Your task to perform on an android device: How much does the Vizio TV cost? Image 0: 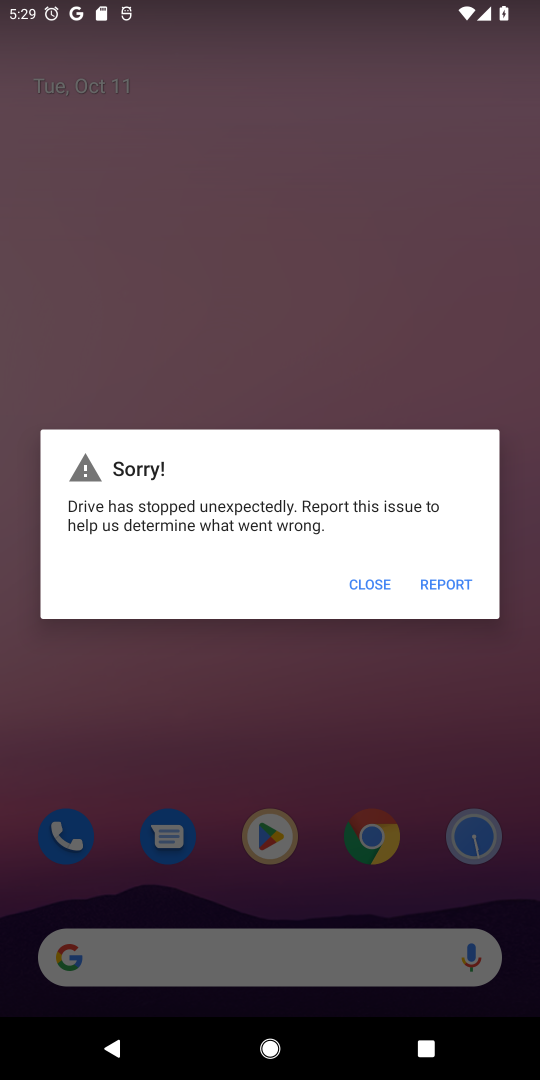
Step 0: click (362, 565)
Your task to perform on an android device: How much does the Vizio TV cost? Image 1: 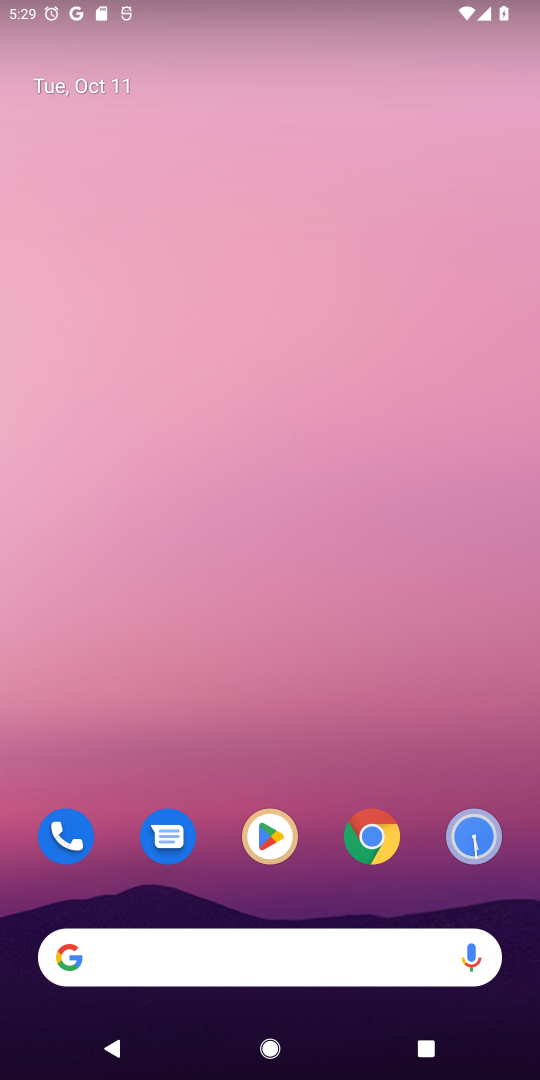
Step 1: click (209, 937)
Your task to perform on an android device: How much does the Vizio TV cost? Image 2: 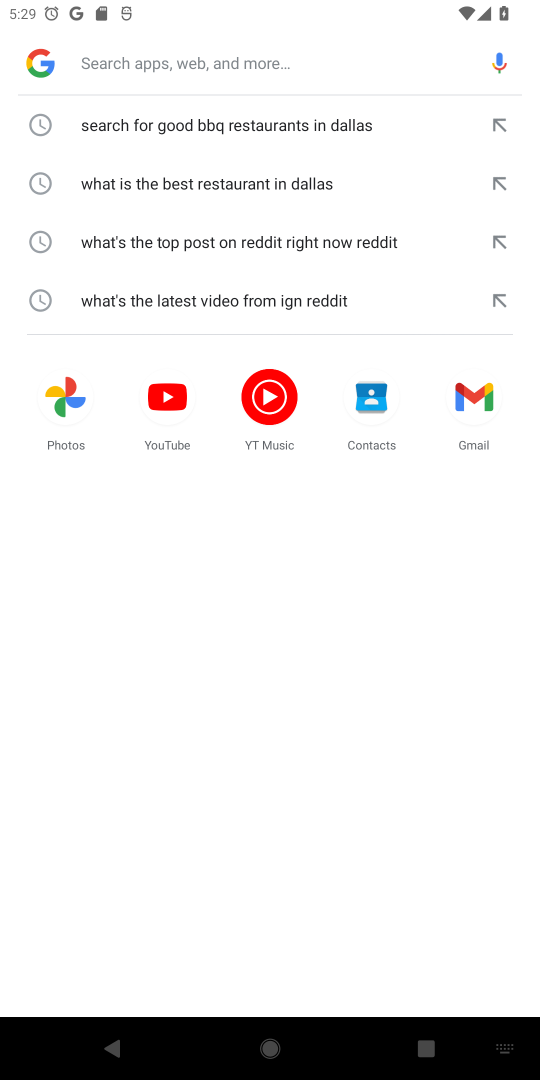
Step 2: type "How much does the Vizio TV cost?"
Your task to perform on an android device: How much does the Vizio TV cost? Image 3: 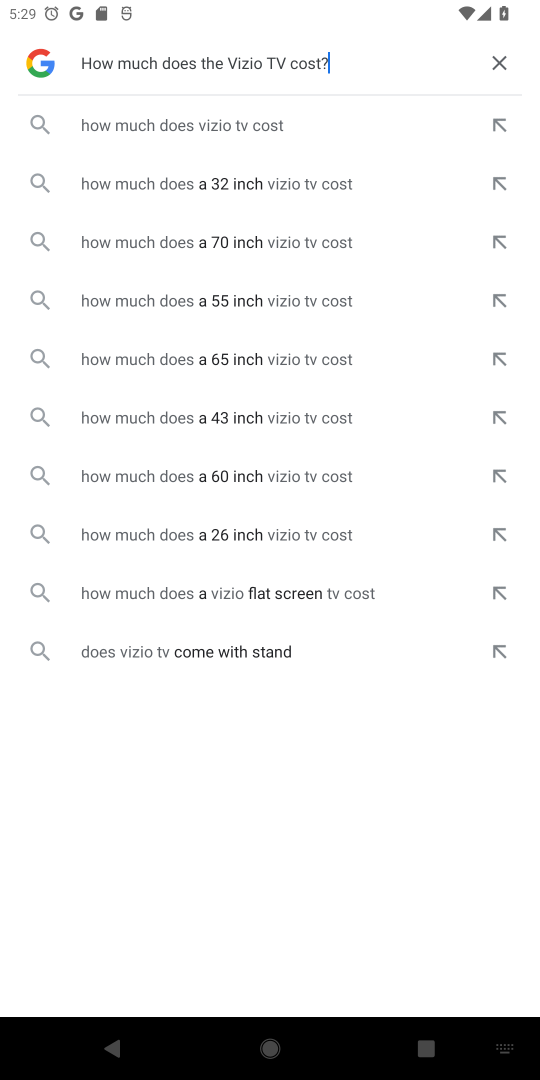
Step 3: click (303, 122)
Your task to perform on an android device: How much does the Vizio TV cost? Image 4: 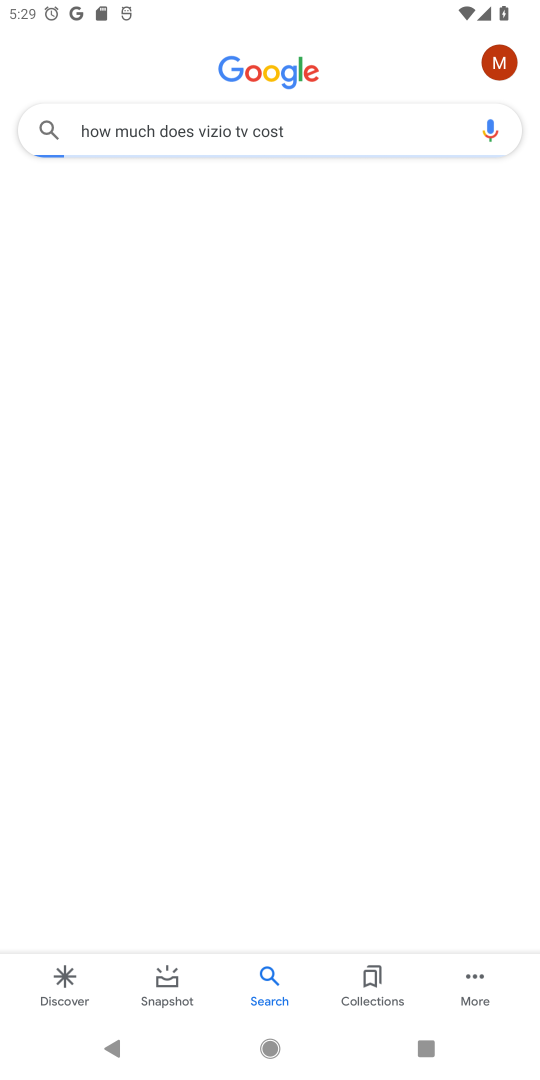
Step 4: task complete